Your task to perform on an android device: Open calendar and show me the second week of next month Image 0: 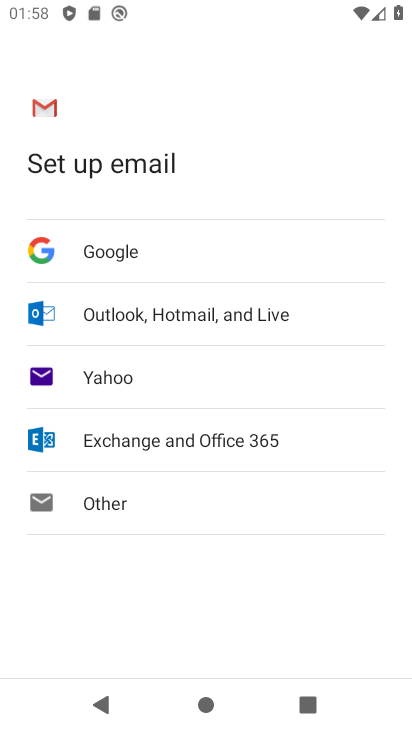
Step 0: press back button
Your task to perform on an android device: Open calendar and show me the second week of next month Image 1: 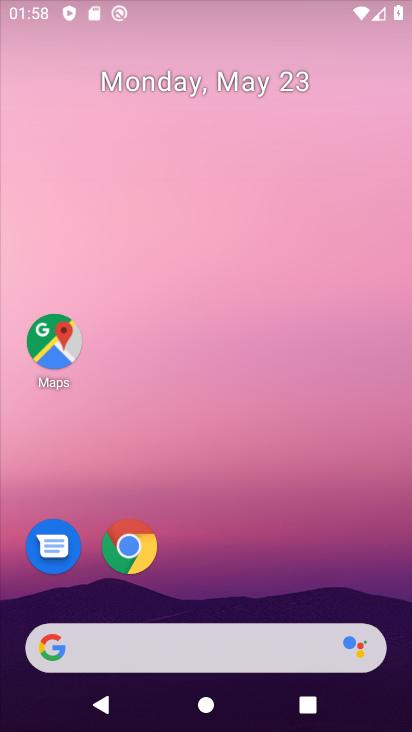
Step 1: drag from (130, 581) to (281, 21)
Your task to perform on an android device: Open calendar and show me the second week of next month Image 2: 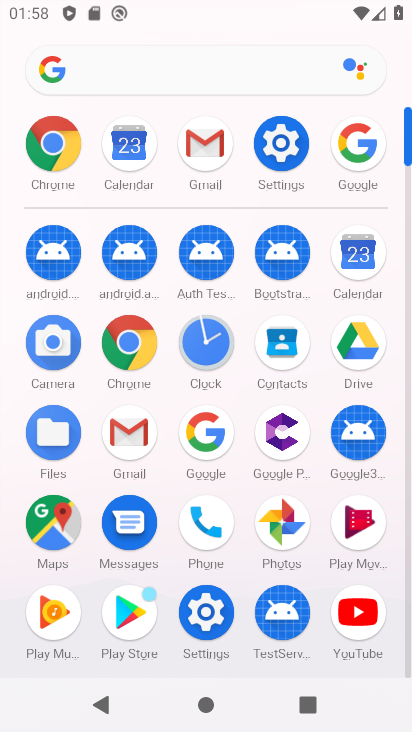
Step 2: click (350, 258)
Your task to perform on an android device: Open calendar and show me the second week of next month Image 3: 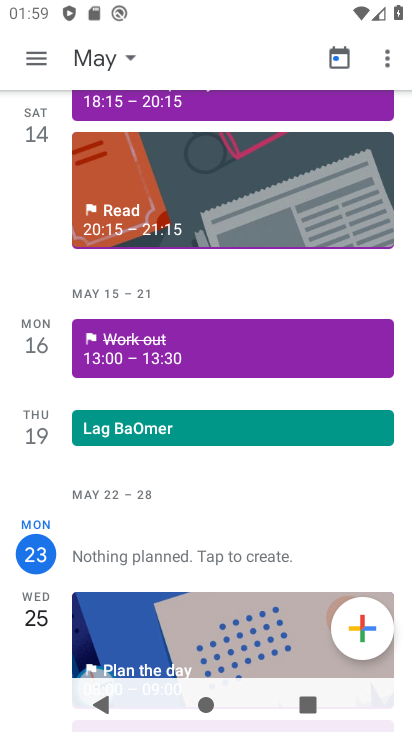
Step 3: click (112, 50)
Your task to perform on an android device: Open calendar and show me the second week of next month Image 4: 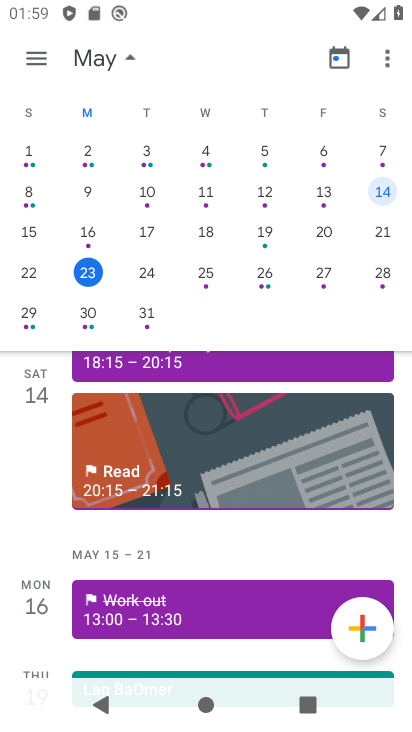
Step 4: drag from (390, 200) to (43, 166)
Your task to perform on an android device: Open calendar and show me the second week of next month Image 5: 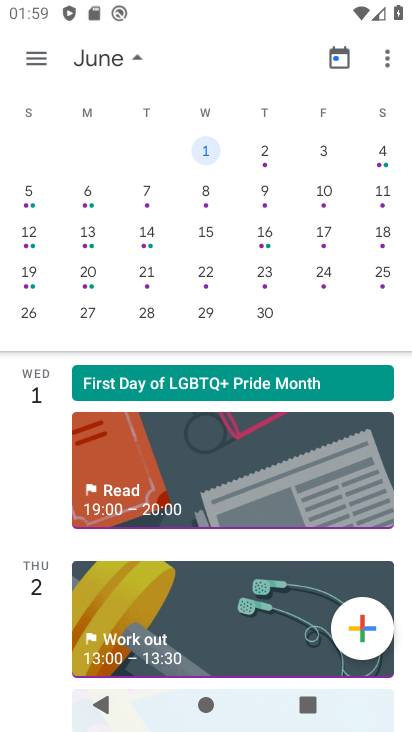
Step 5: click (83, 190)
Your task to perform on an android device: Open calendar and show me the second week of next month Image 6: 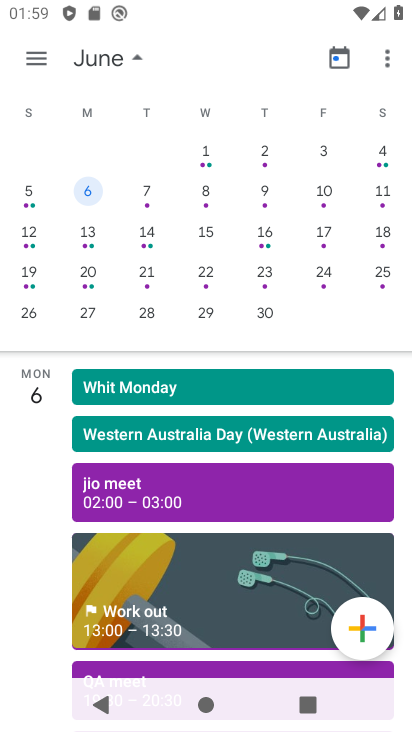
Step 6: task complete